Your task to perform on an android device: turn on the 24-hour format for clock Image 0: 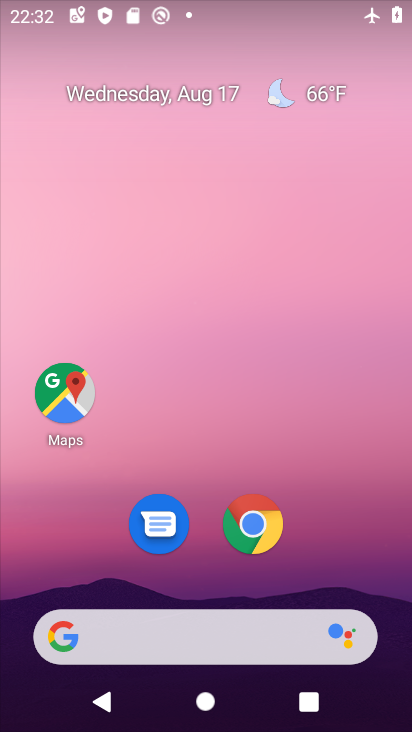
Step 0: drag from (322, 473) to (331, 3)
Your task to perform on an android device: turn on the 24-hour format for clock Image 1: 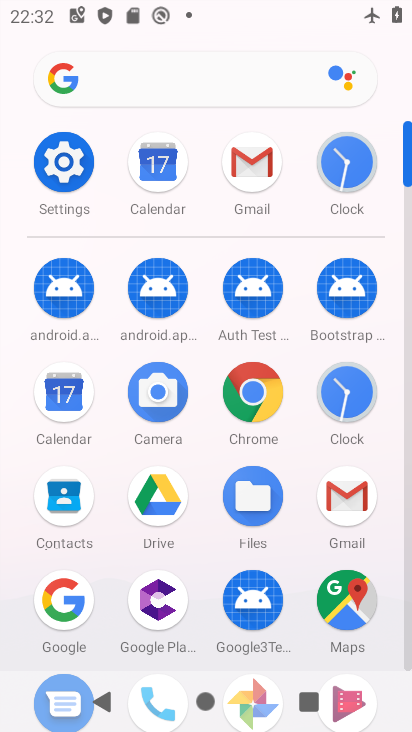
Step 1: click (343, 160)
Your task to perform on an android device: turn on the 24-hour format for clock Image 2: 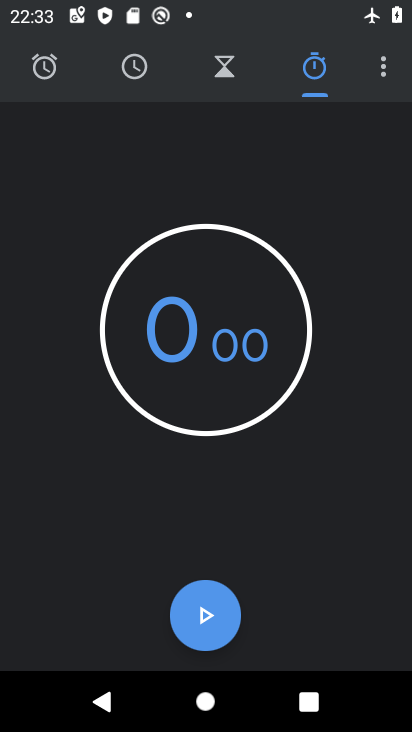
Step 2: click (383, 76)
Your task to perform on an android device: turn on the 24-hour format for clock Image 3: 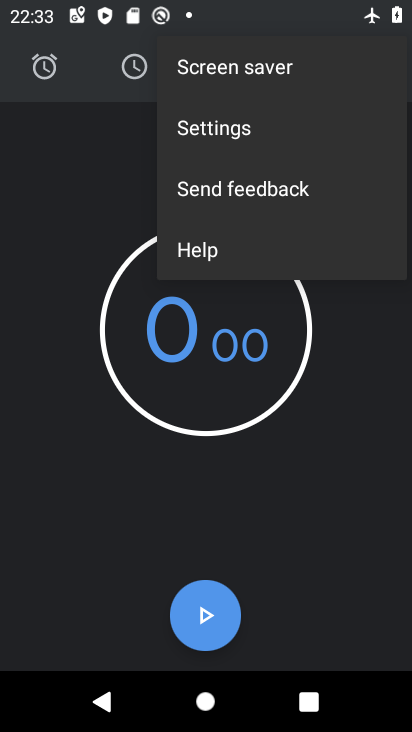
Step 3: click (299, 120)
Your task to perform on an android device: turn on the 24-hour format for clock Image 4: 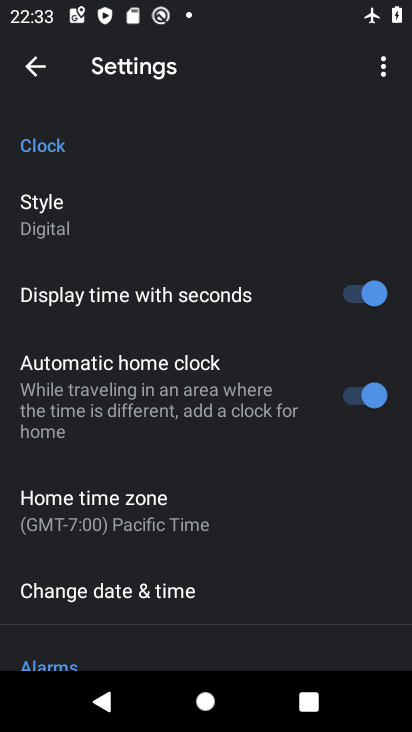
Step 4: click (222, 603)
Your task to perform on an android device: turn on the 24-hour format for clock Image 5: 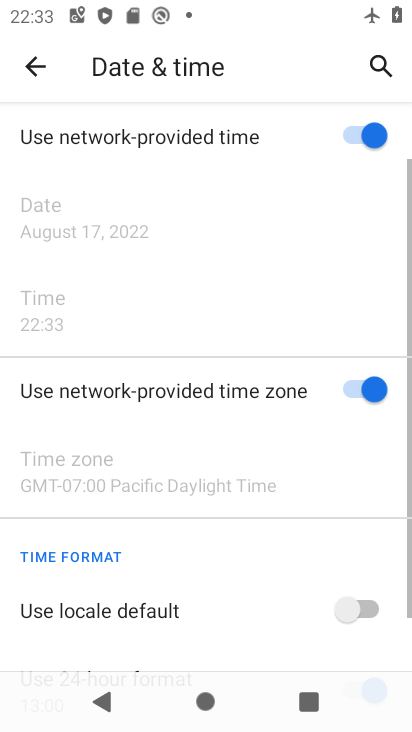
Step 5: task complete